Your task to perform on an android device: turn on the 12-hour format for clock Image 0: 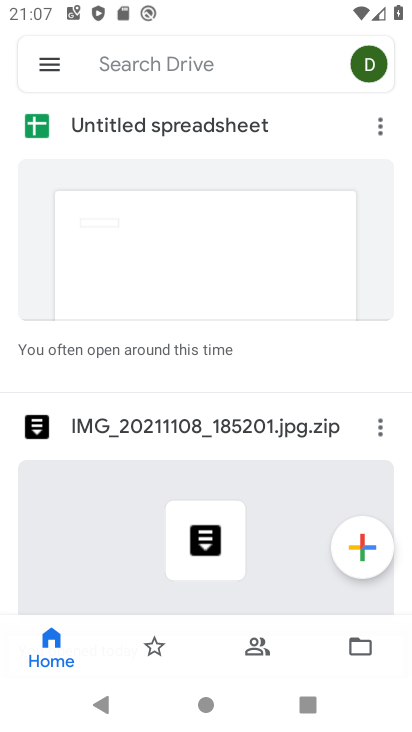
Step 0: press home button
Your task to perform on an android device: turn on the 12-hour format for clock Image 1: 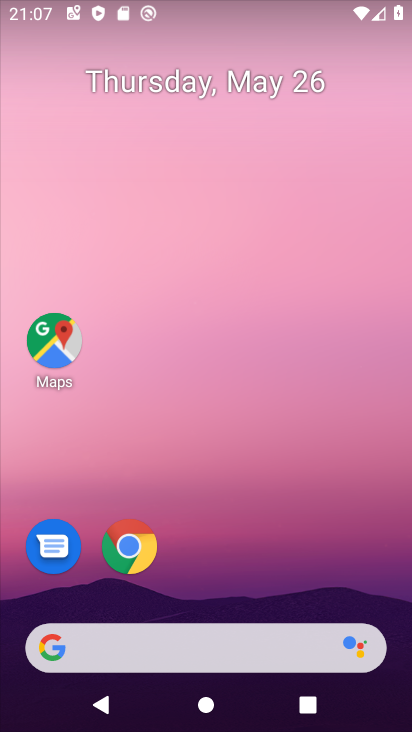
Step 1: drag from (231, 597) to (187, 140)
Your task to perform on an android device: turn on the 12-hour format for clock Image 2: 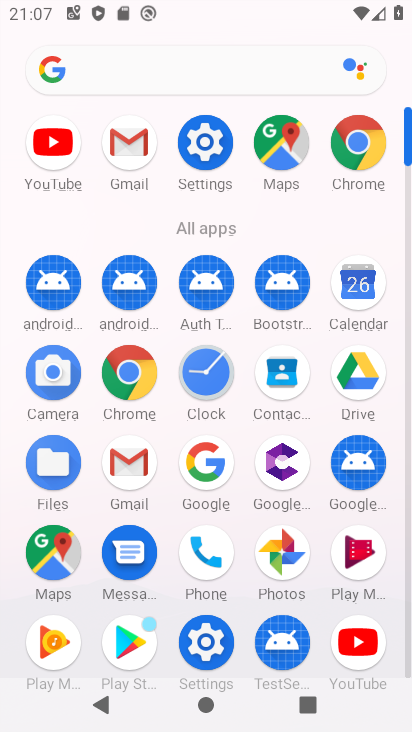
Step 2: click (211, 376)
Your task to perform on an android device: turn on the 12-hour format for clock Image 3: 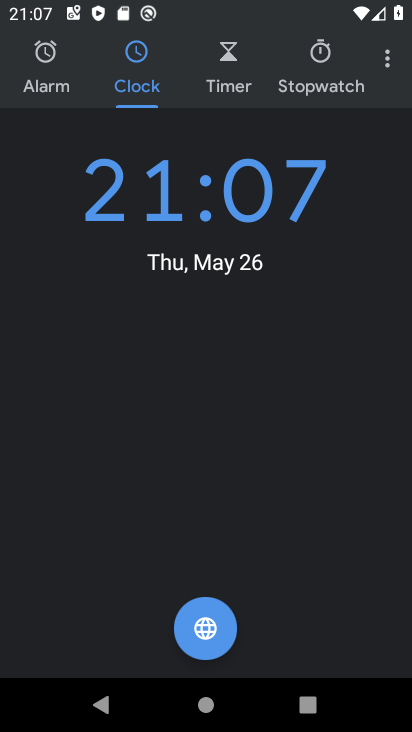
Step 3: click (393, 75)
Your task to perform on an android device: turn on the 12-hour format for clock Image 4: 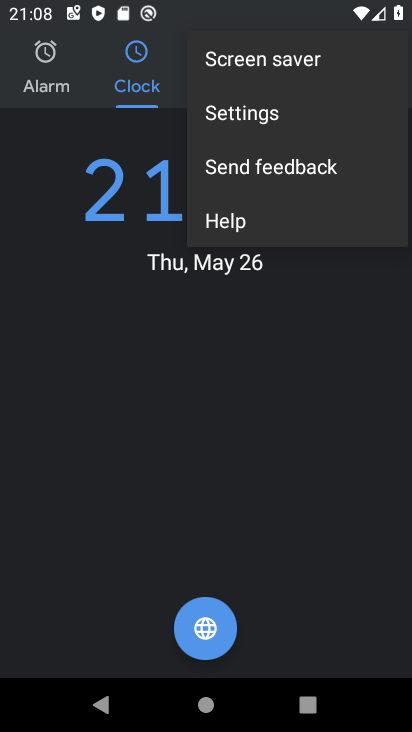
Step 4: click (354, 110)
Your task to perform on an android device: turn on the 12-hour format for clock Image 5: 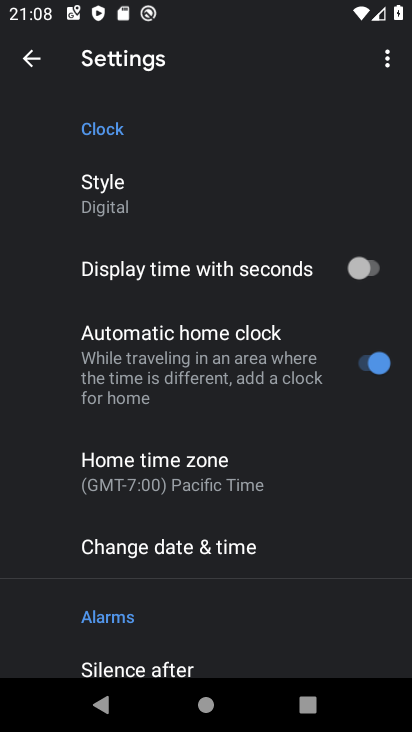
Step 5: click (271, 545)
Your task to perform on an android device: turn on the 12-hour format for clock Image 6: 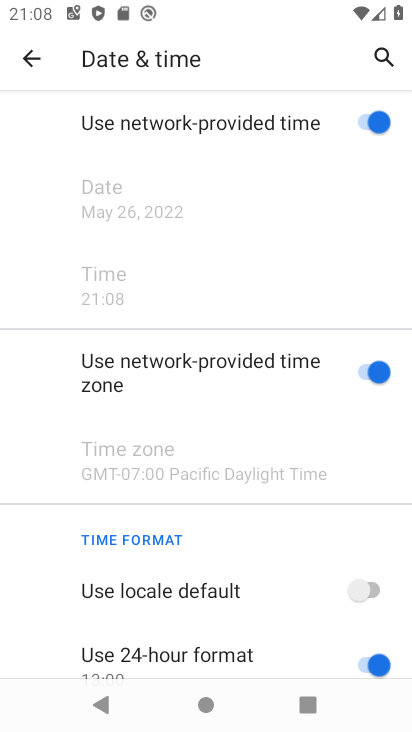
Step 6: drag from (282, 585) to (226, 342)
Your task to perform on an android device: turn on the 12-hour format for clock Image 7: 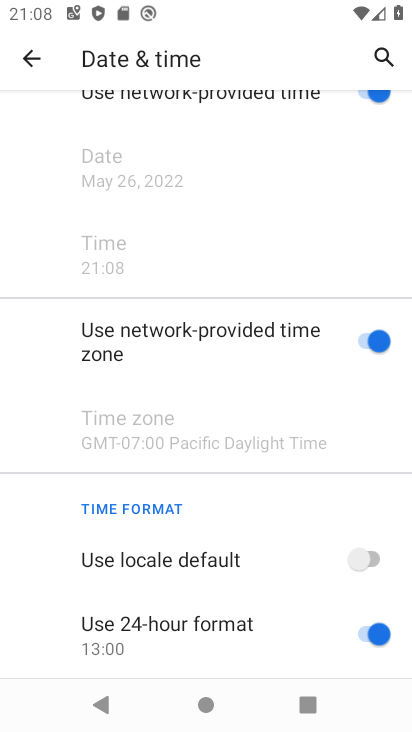
Step 7: click (363, 640)
Your task to perform on an android device: turn on the 12-hour format for clock Image 8: 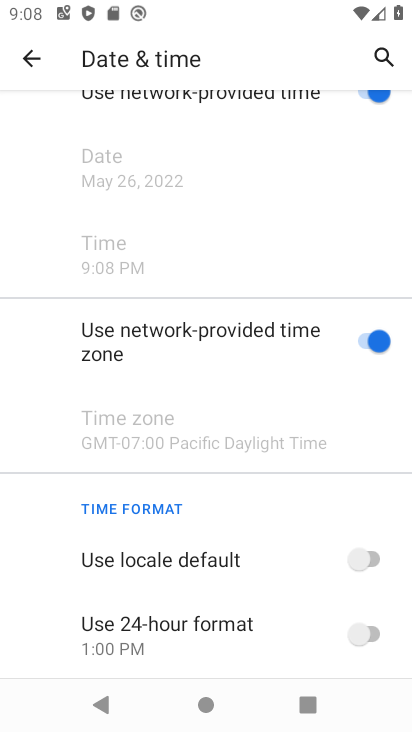
Step 8: task complete